Your task to perform on an android device: Go to Android settings Image 0: 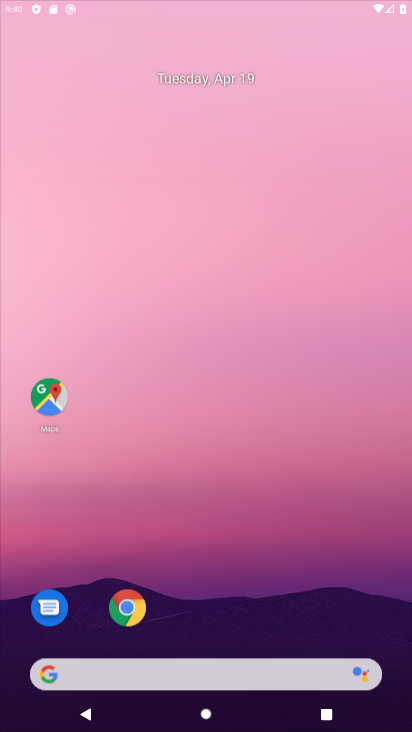
Step 0: click (331, 235)
Your task to perform on an android device: Go to Android settings Image 1: 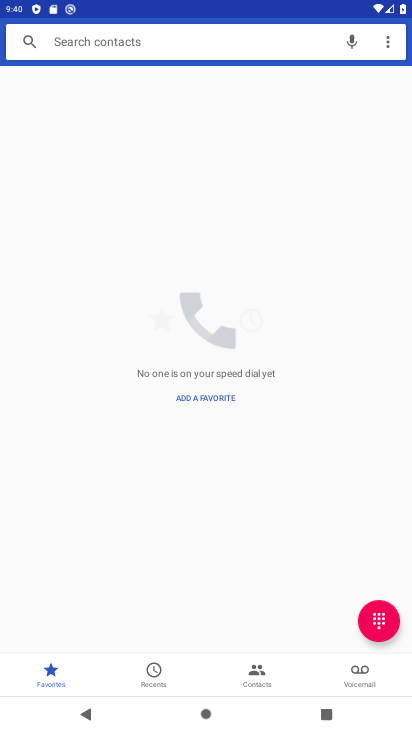
Step 1: press back button
Your task to perform on an android device: Go to Android settings Image 2: 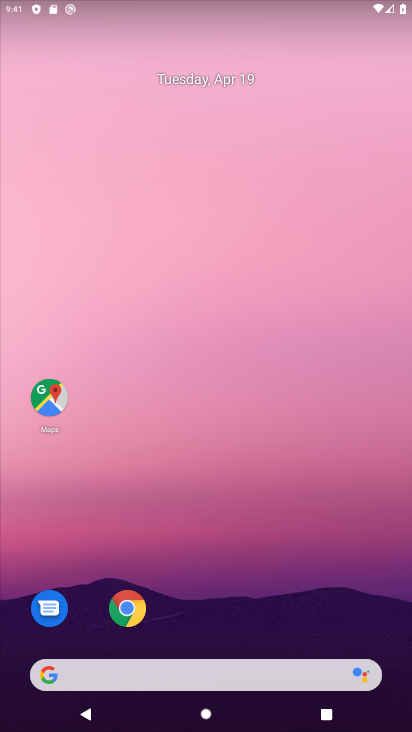
Step 2: drag from (353, 604) to (360, 104)
Your task to perform on an android device: Go to Android settings Image 3: 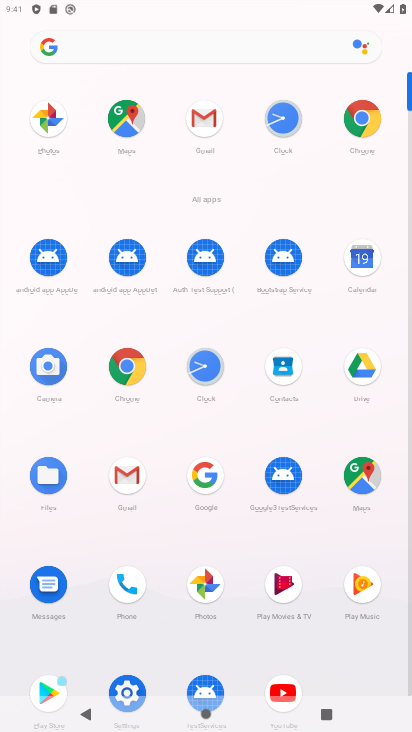
Step 3: click (129, 687)
Your task to perform on an android device: Go to Android settings Image 4: 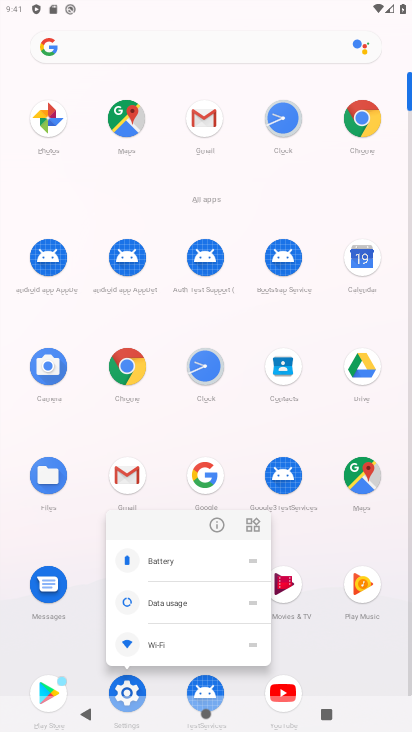
Step 4: click (128, 676)
Your task to perform on an android device: Go to Android settings Image 5: 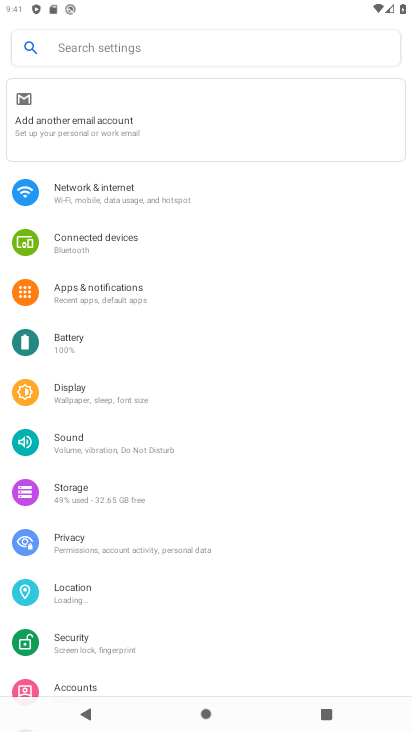
Step 5: drag from (289, 618) to (299, 243)
Your task to perform on an android device: Go to Android settings Image 6: 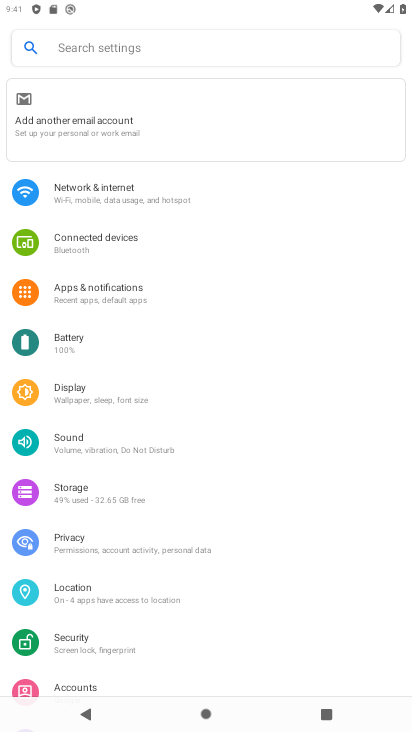
Step 6: drag from (352, 653) to (320, 284)
Your task to perform on an android device: Go to Android settings Image 7: 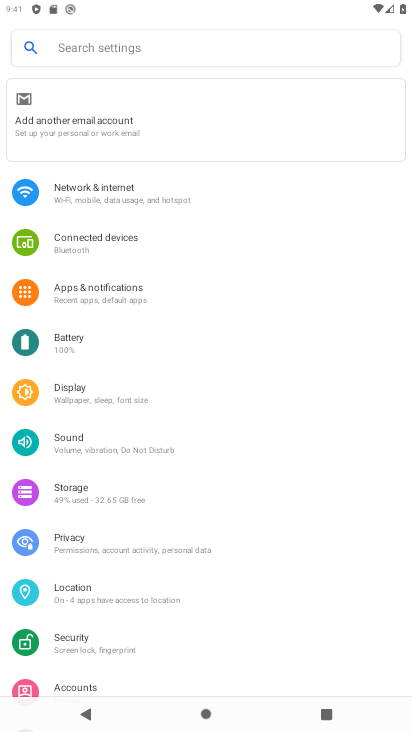
Step 7: drag from (358, 656) to (327, 183)
Your task to perform on an android device: Go to Android settings Image 8: 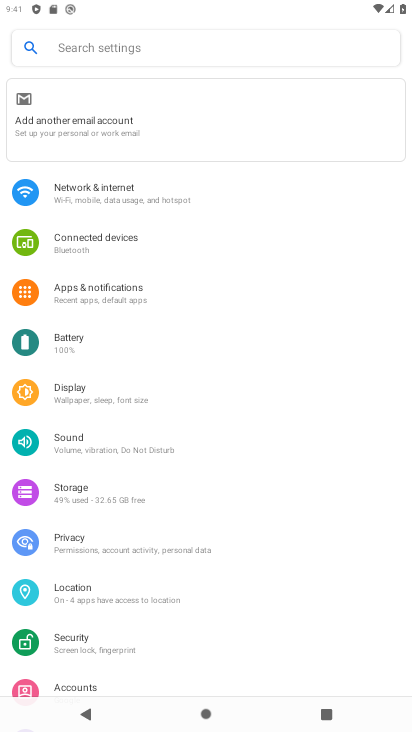
Step 8: drag from (335, 245) to (327, 211)
Your task to perform on an android device: Go to Android settings Image 9: 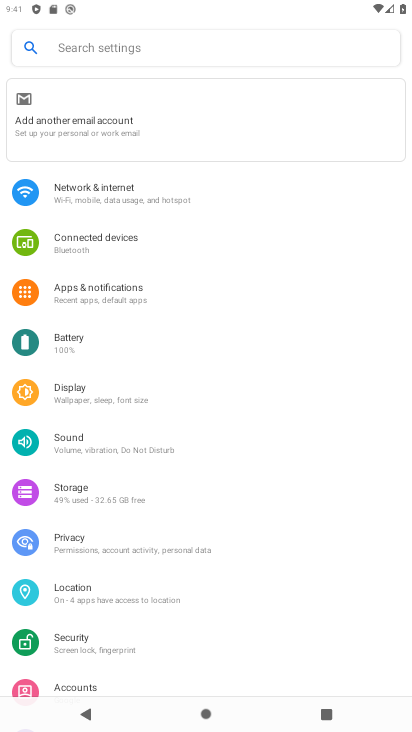
Step 9: click (353, 182)
Your task to perform on an android device: Go to Android settings Image 10: 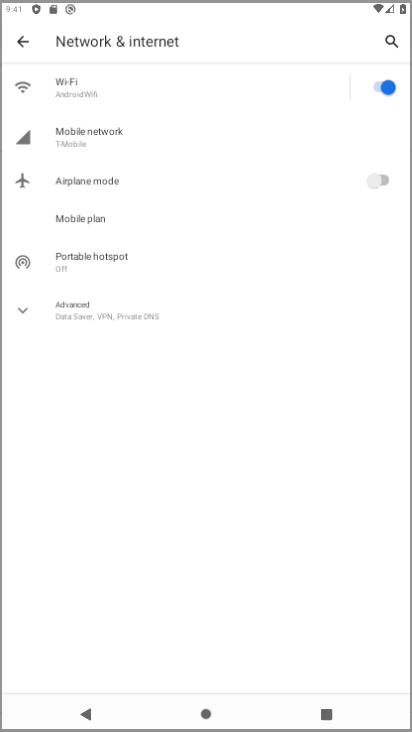
Step 10: drag from (340, 555) to (301, 162)
Your task to perform on an android device: Go to Android settings Image 11: 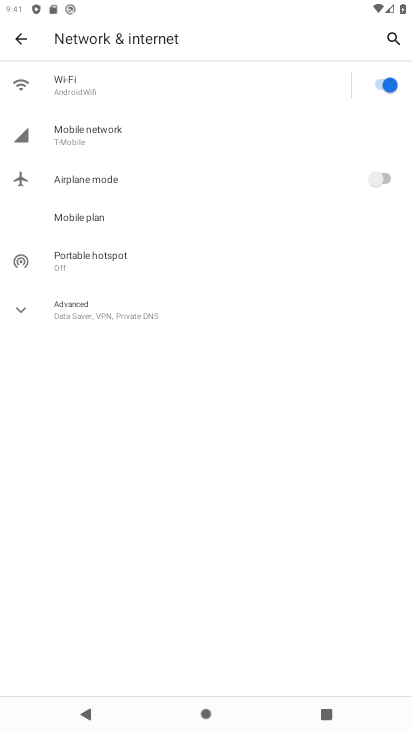
Step 11: click (26, 36)
Your task to perform on an android device: Go to Android settings Image 12: 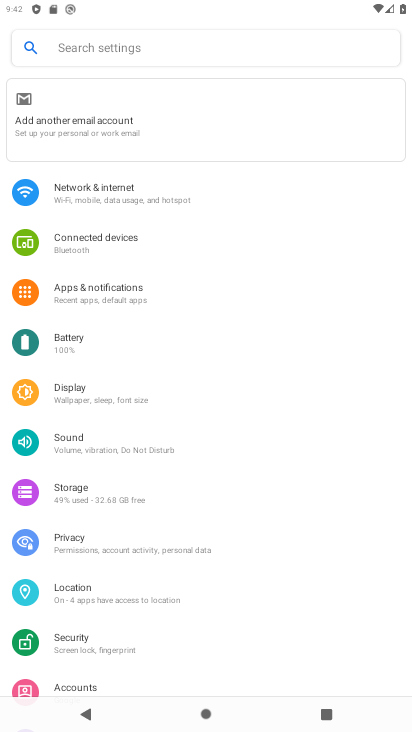
Step 12: click (320, 141)
Your task to perform on an android device: Go to Android settings Image 13: 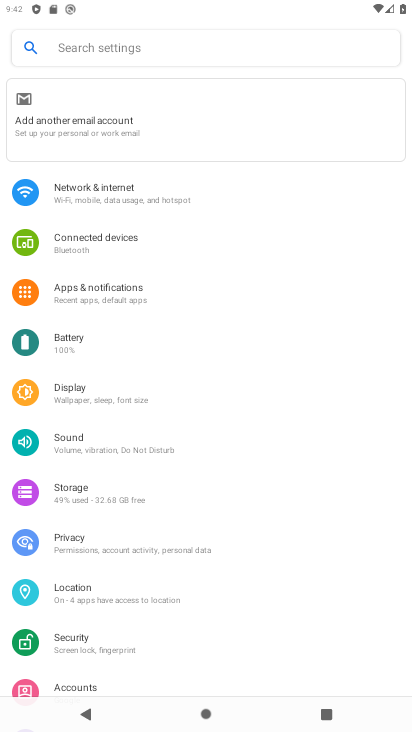
Step 13: task complete